Your task to perform on an android device: Turn off the flashlight Image 0: 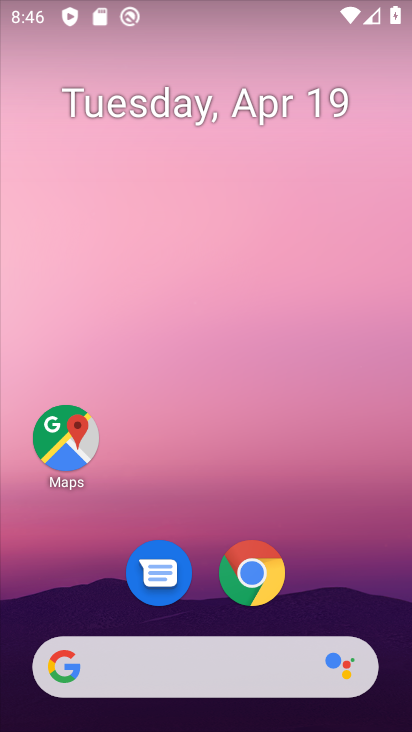
Step 0: drag from (217, 8) to (209, 339)
Your task to perform on an android device: Turn off the flashlight Image 1: 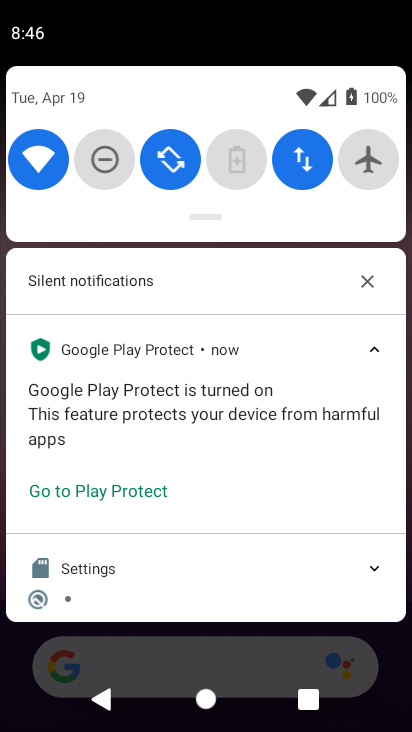
Step 1: task complete